Your task to perform on an android device: turn off improve location accuracy Image 0: 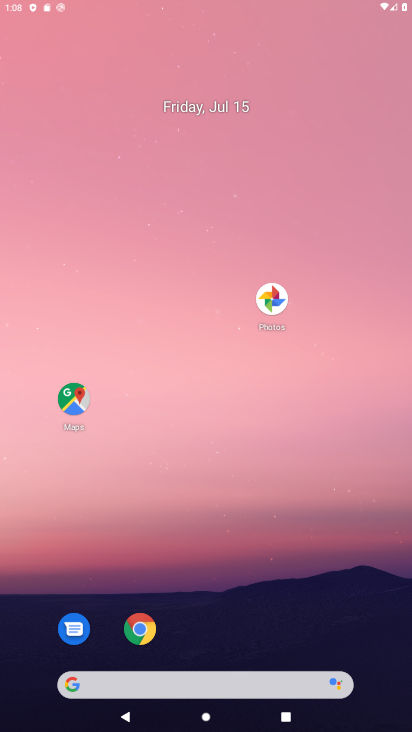
Step 0: press home button
Your task to perform on an android device: turn off improve location accuracy Image 1: 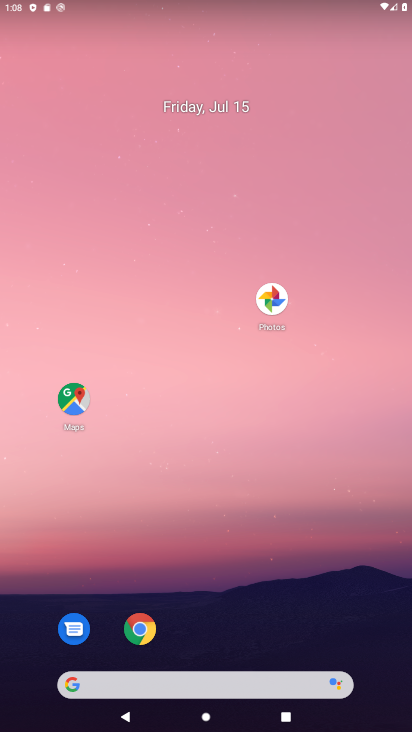
Step 1: click (132, 624)
Your task to perform on an android device: turn off improve location accuracy Image 2: 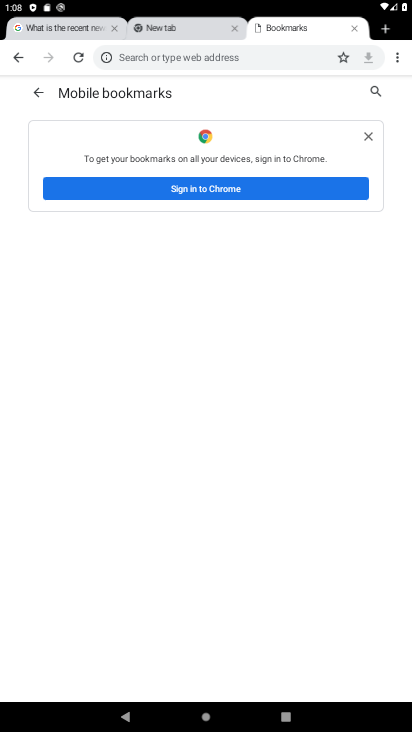
Step 2: click (358, 24)
Your task to perform on an android device: turn off improve location accuracy Image 3: 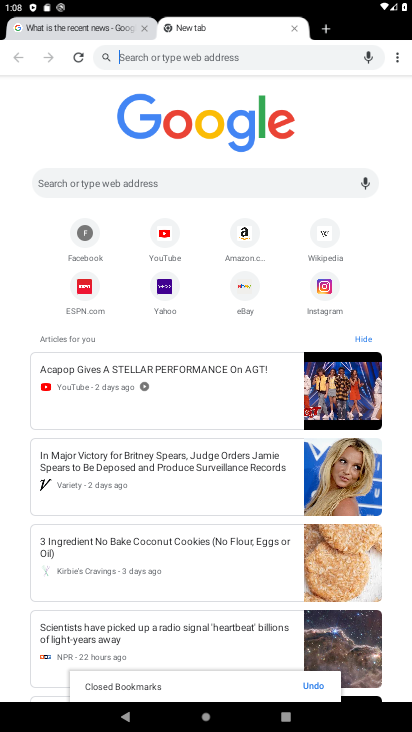
Step 3: click (242, 232)
Your task to perform on an android device: turn off improve location accuracy Image 4: 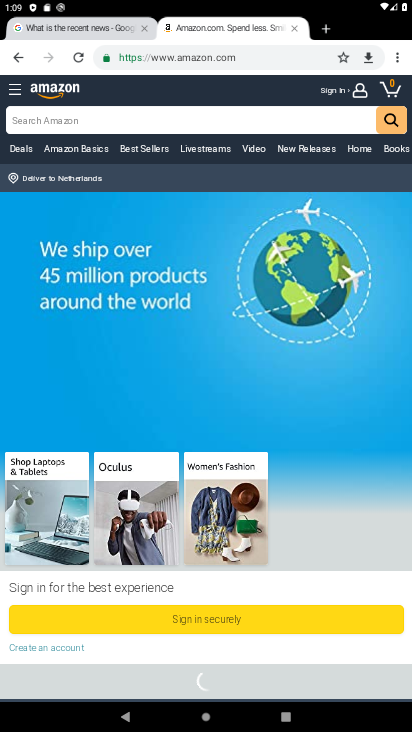
Step 4: press home button
Your task to perform on an android device: turn off improve location accuracy Image 5: 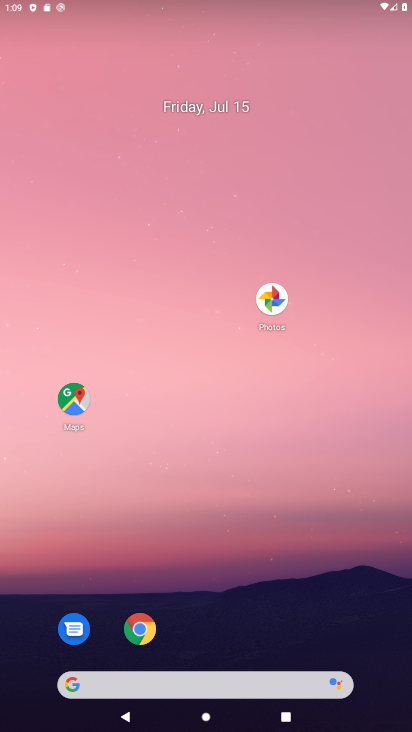
Step 5: drag from (205, 622) to (207, 183)
Your task to perform on an android device: turn off improve location accuracy Image 6: 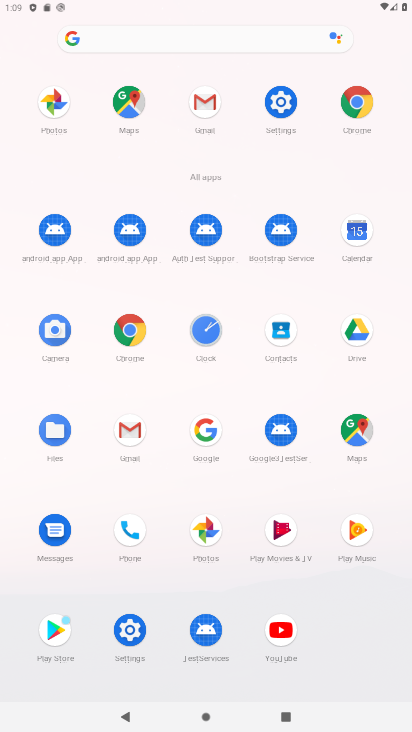
Step 6: click (294, 91)
Your task to perform on an android device: turn off improve location accuracy Image 7: 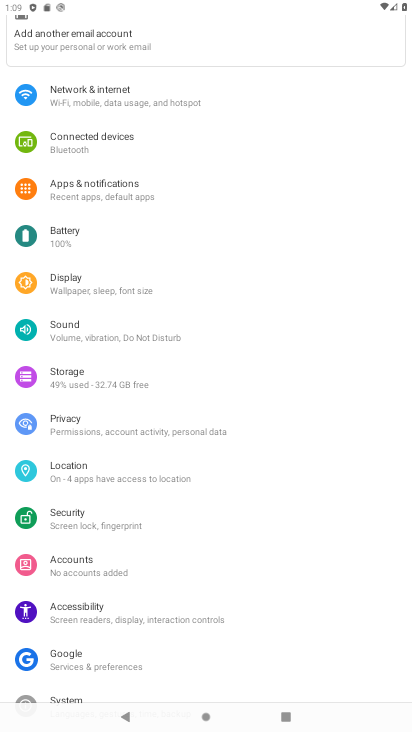
Step 7: click (118, 470)
Your task to perform on an android device: turn off improve location accuracy Image 8: 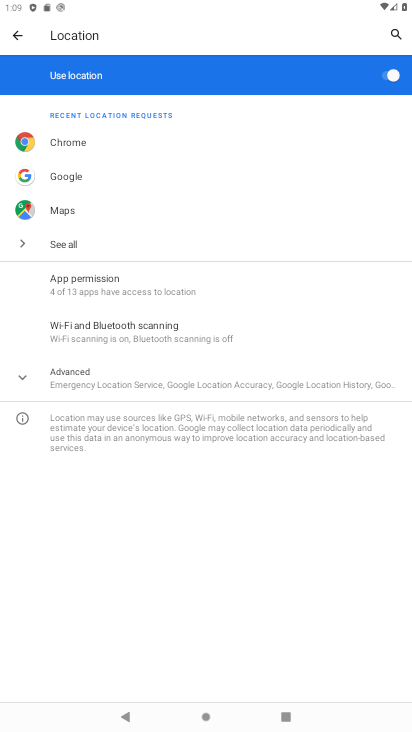
Step 8: click (177, 370)
Your task to perform on an android device: turn off improve location accuracy Image 9: 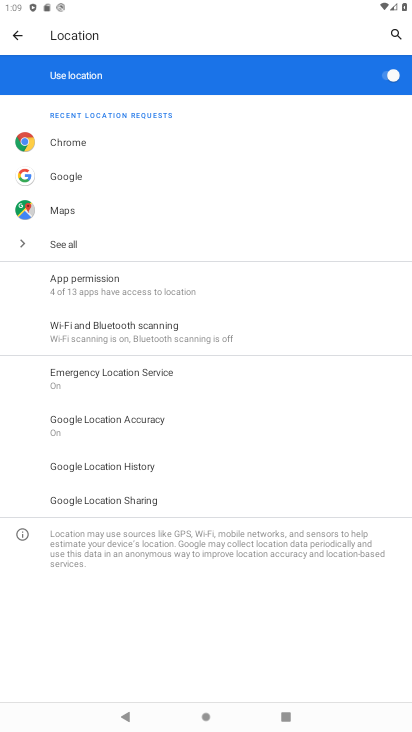
Step 9: click (143, 412)
Your task to perform on an android device: turn off improve location accuracy Image 10: 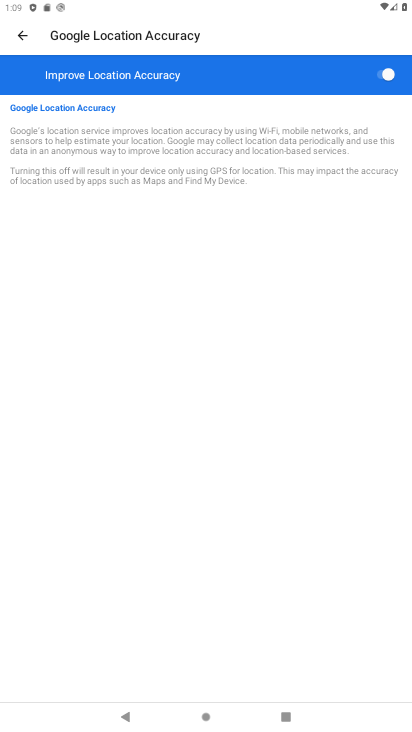
Step 10: click (380, 72)
Your task to perform on an android device: turn off improve location accuracy Image 11: 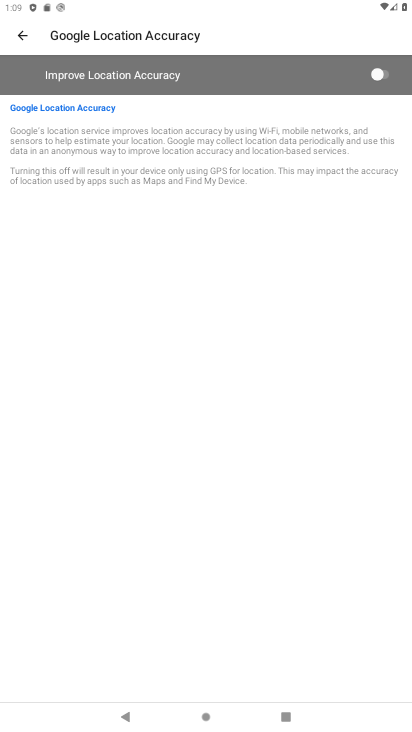
Step 11: task complete